Your task to perform on an android device: Open privacy settings Image 0: 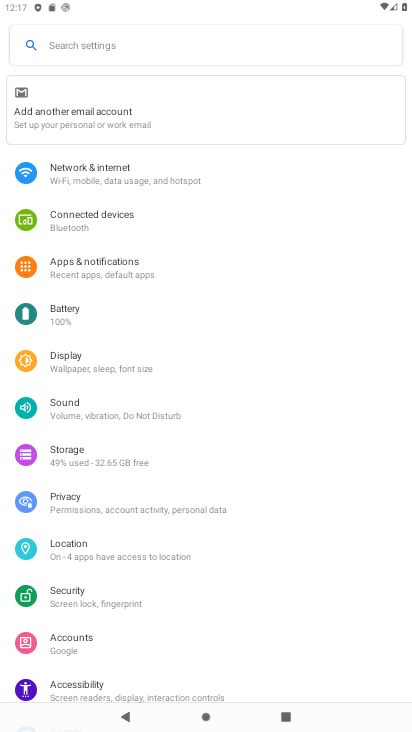
Step 0: click (72, 514)
Your task to perform on an android device: Open privacy settings Image 1: 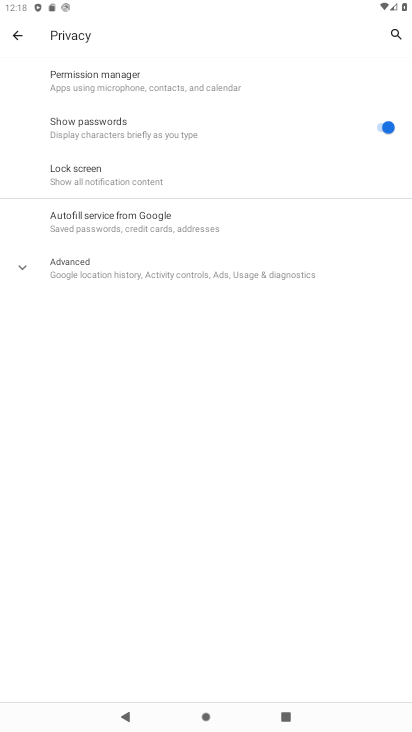
Step 1: click (103, 263)
Your task to perform on an android device: Open privacy settings Image 2: 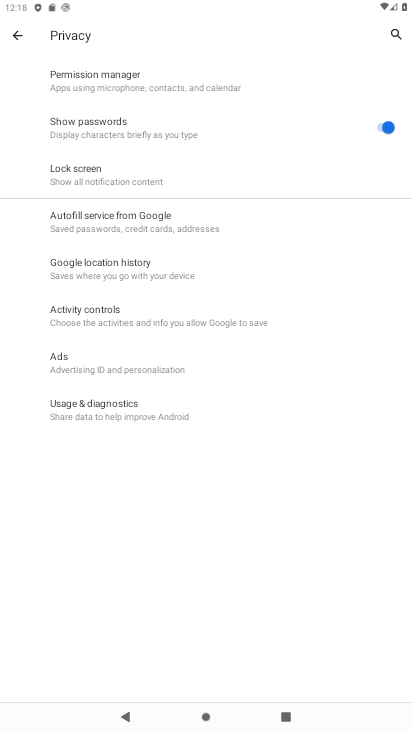
Step 2: task complete